Your task to perform on an android device: set the timer Image 0: 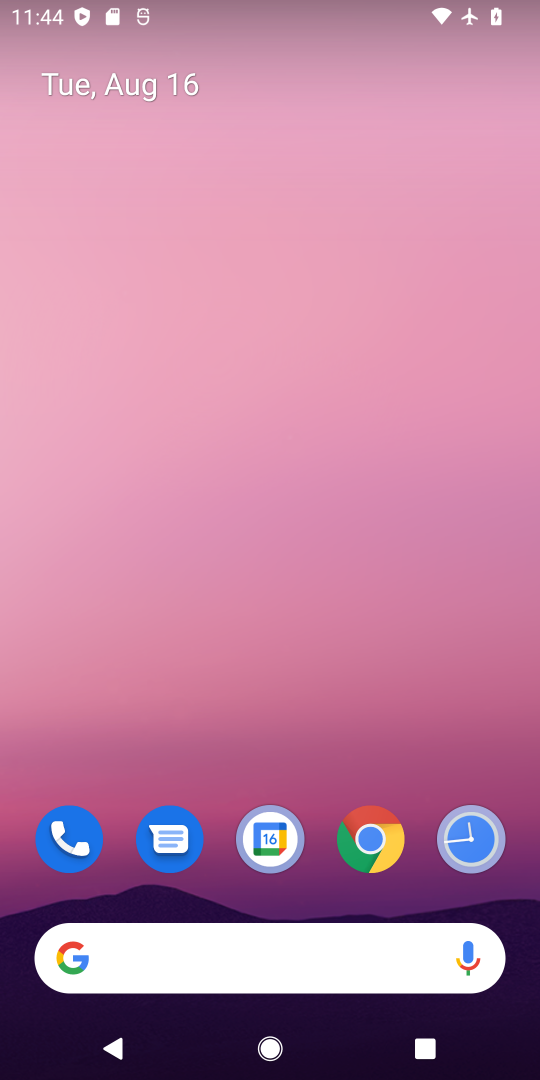
Step 0: drag from (261, 902) to (315, 32)
Your task to perform on an android device: set the timer Image 1: 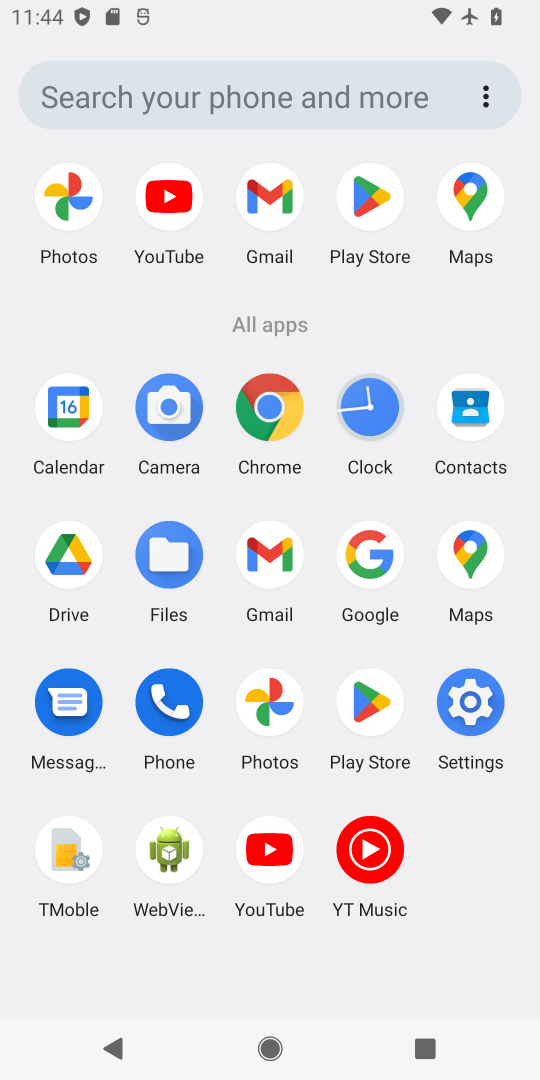
Step 1: click (372, 433)
Your task to perform on an android device: set the timer Image 2: 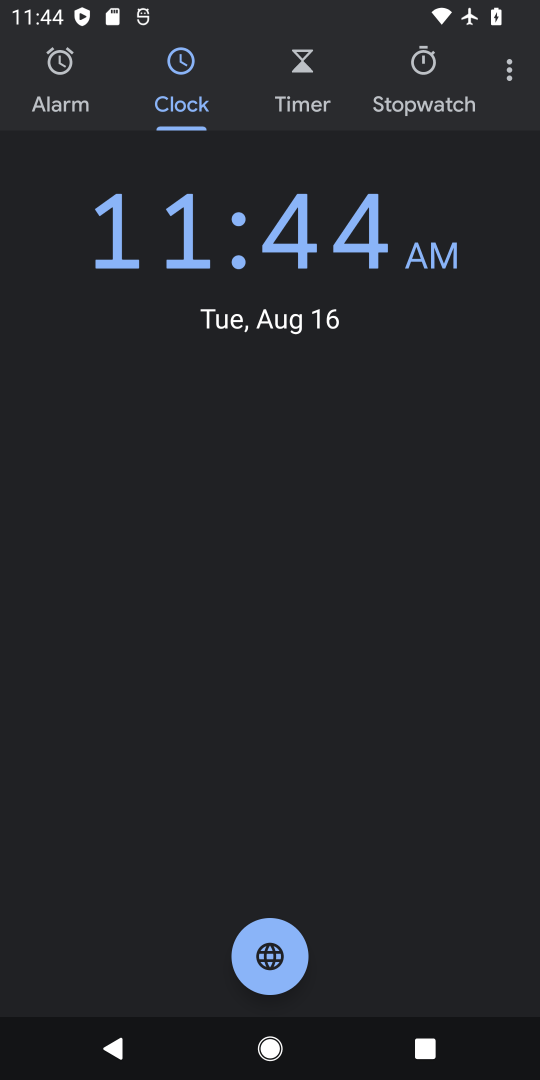
Step 2: click (294, 86)
Your task to perform on an android device: set the timer Image 3: 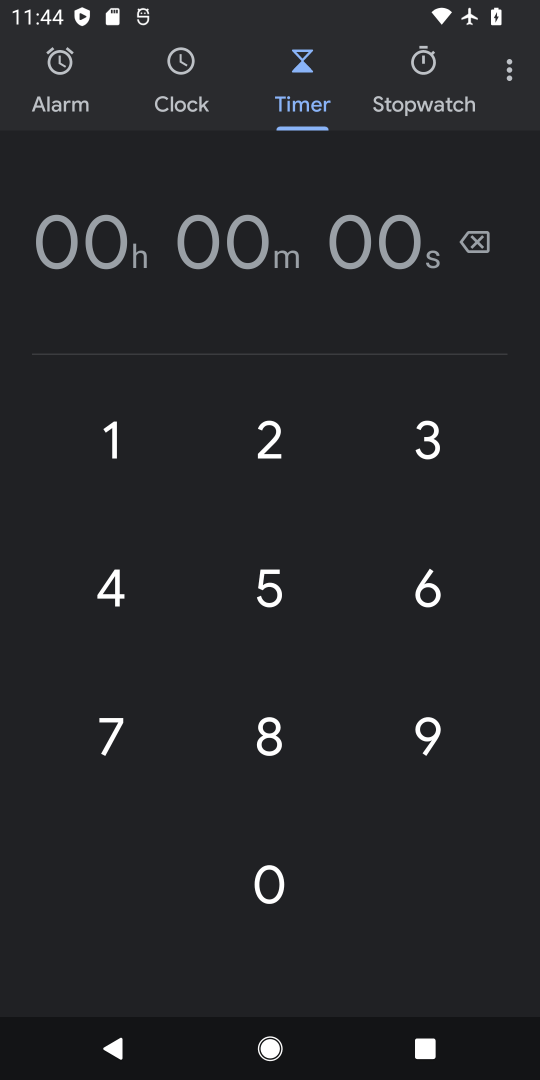
Step 3: click (113, 740)
Your task to perform on an android device: set the timer Image 4: 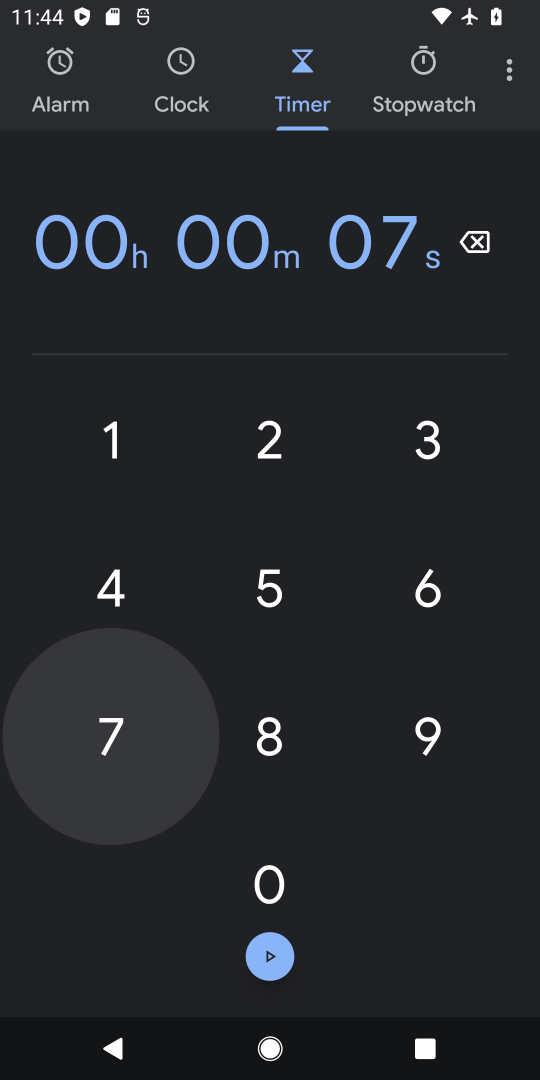
Step 4: click (278, 572)
Your task to perform on an android device: set the timer Image 5: 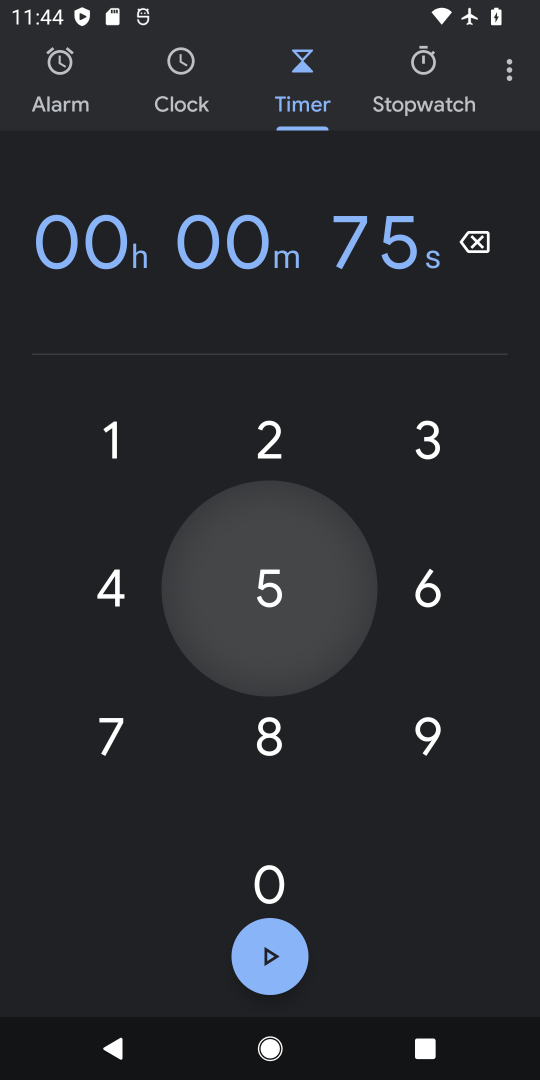
Step 5: click (454, 431)
Your task to perform on an android device: set the timer Image 6: 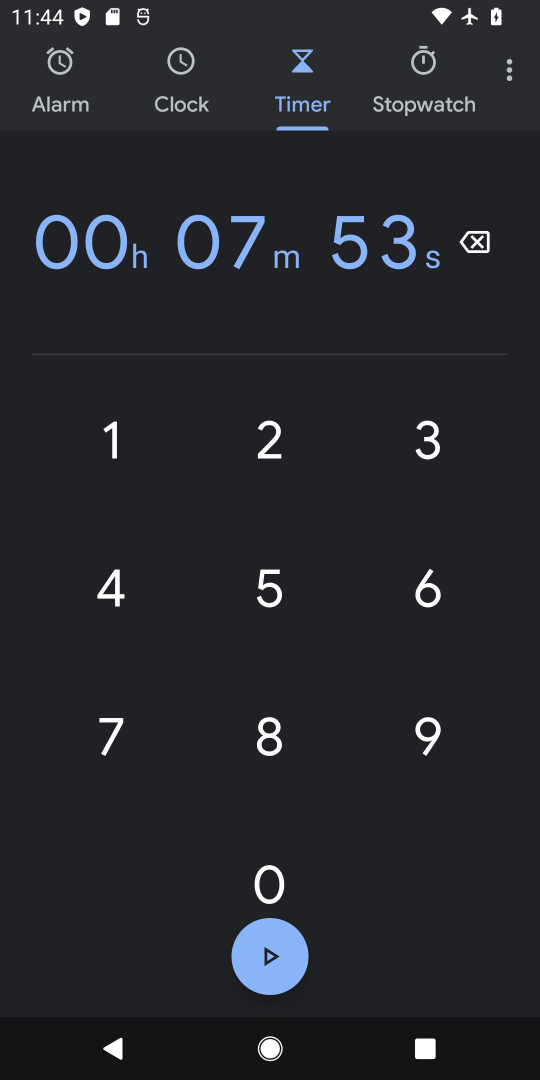
Step 6: click (282, 951)
Your task to perform on an android device: set the timer Image 7: 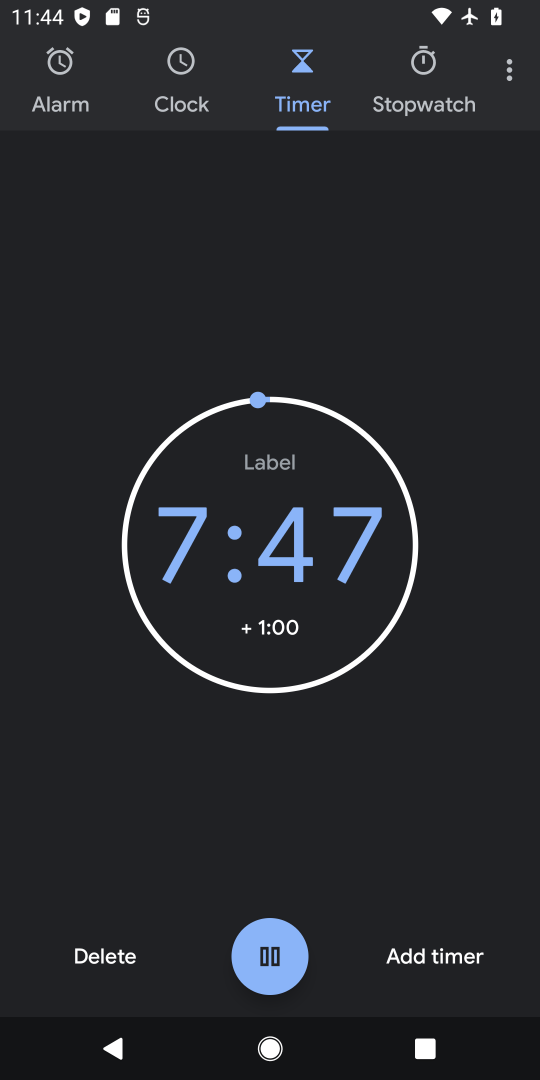
Step 7: task complete